Your task to perform on an android device: toggle airplane mode Image 0: 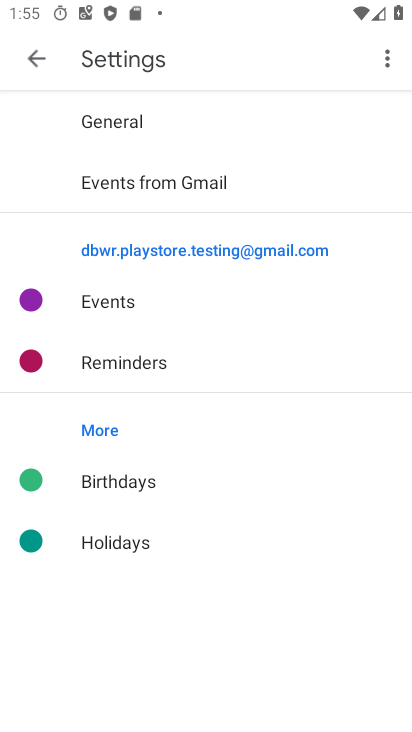
Step 0: press home button
Your task to perform on an android device: toggle airplane mode Image 1: 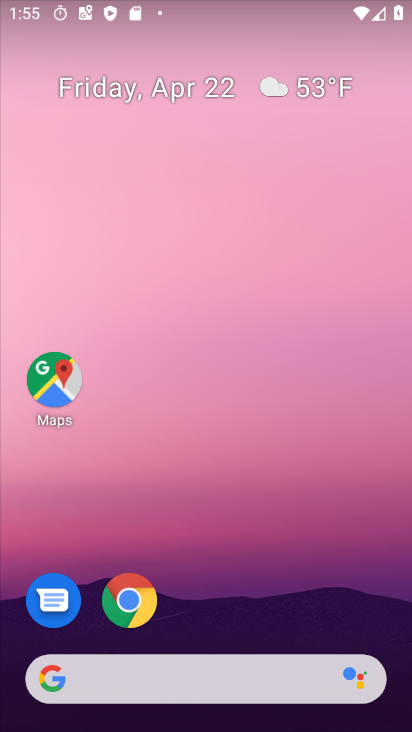
Step 1: drag from (217, 702) to (217, 122)
Your task to perform on an android device: toggle airplane mode Image 2: 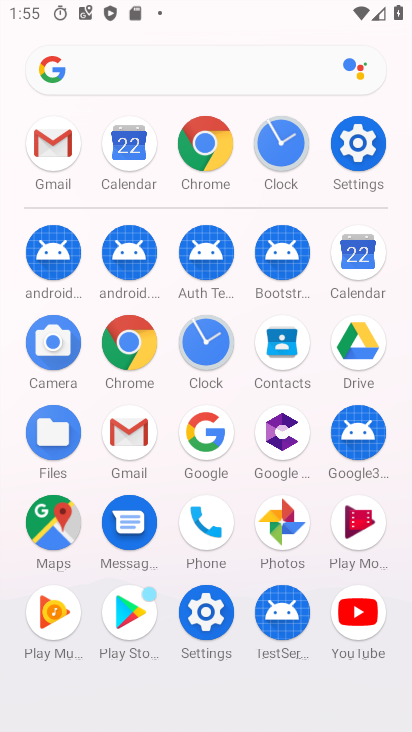
Step 2: click (350, 150)
Your task to perform on an android device: toggle airplane mode Image 3: 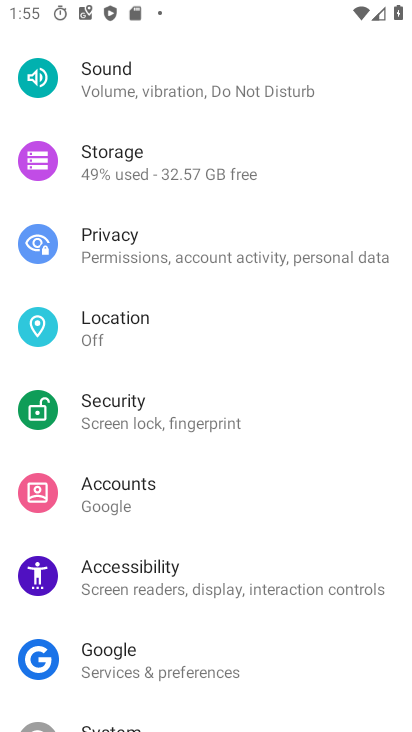
Step 3: drag from (188, 130) to (172, 557)
Your task to perform on an android device: toggle airplane mode Image 4: 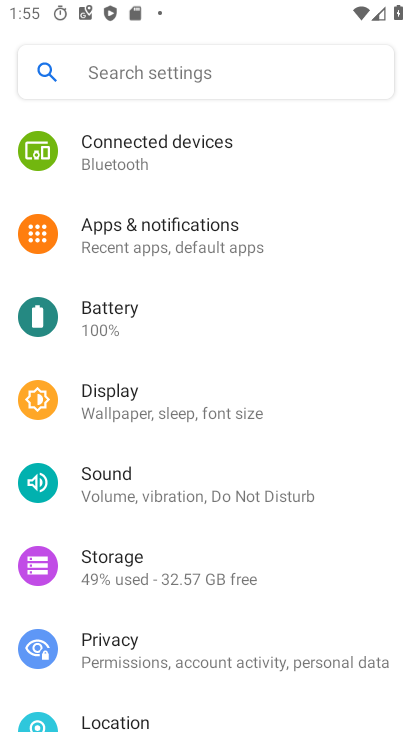
Step 4: drag from (165, 124) to (170, 549)
Your task to perform on an android device: toggle airplane mode Image 5: 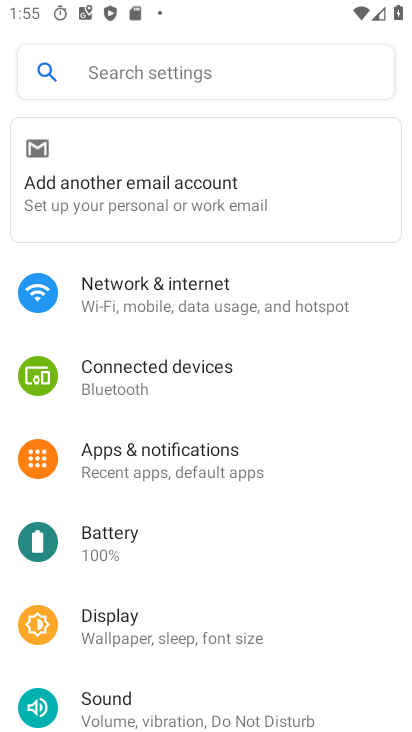
Step 5: click (159, 301)
Your task to perform on an android device: toggle airplane mode Image 6: 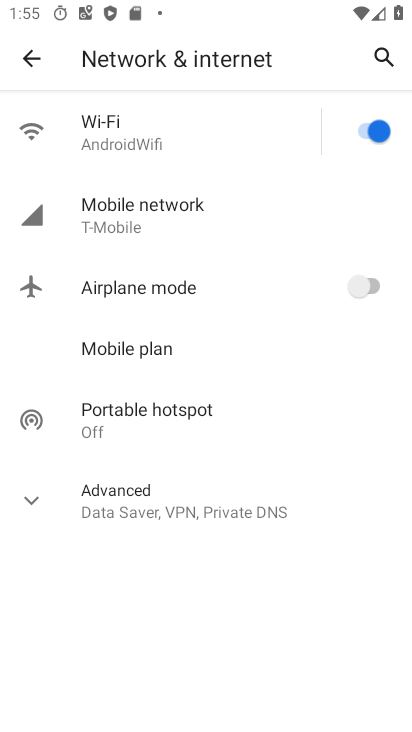
Step 6: click (374, 285)
Your task to perform on an android device: toggle airplane mode Image 7: 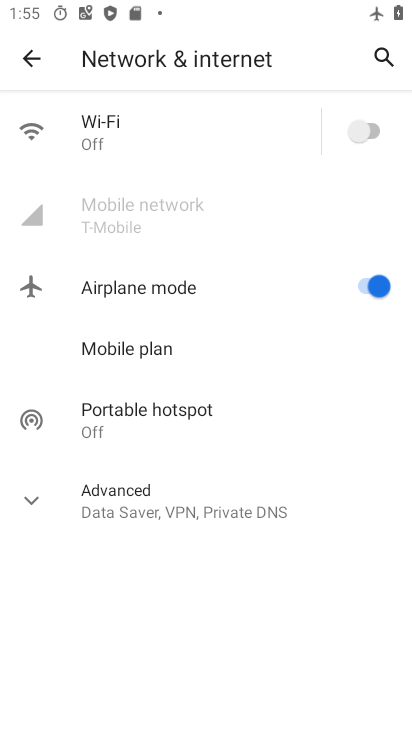
Step 7: task complete